Your task to perform on an android device: Open maps Image 0: 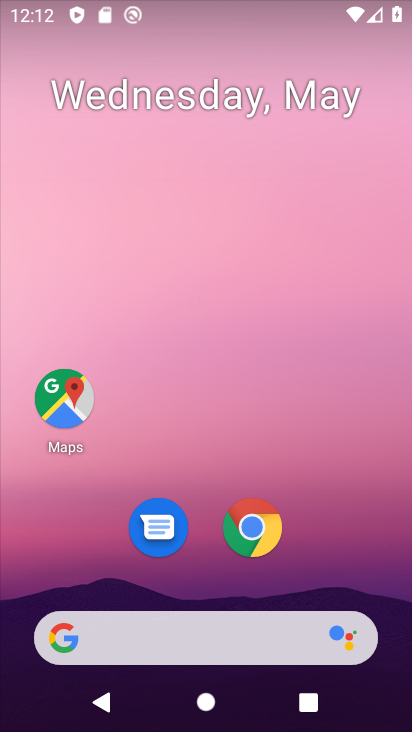
Step 0: click (68, 396)
Your task to perform on an android device: Open maps Image 1: 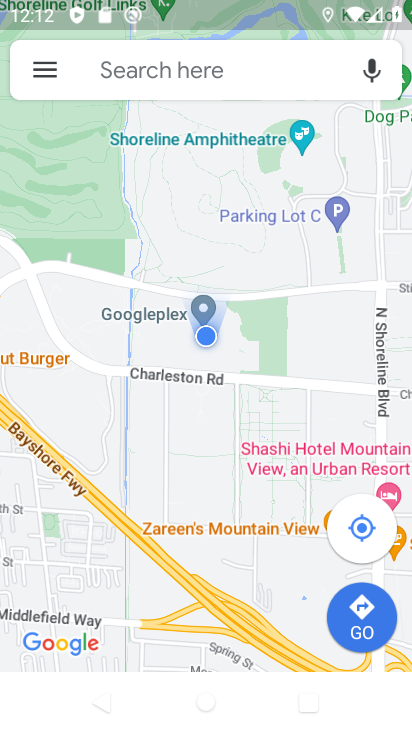
Step 1: task complete